Your task to perform on an android device: open app "Microsoft Outlook" Image 0: 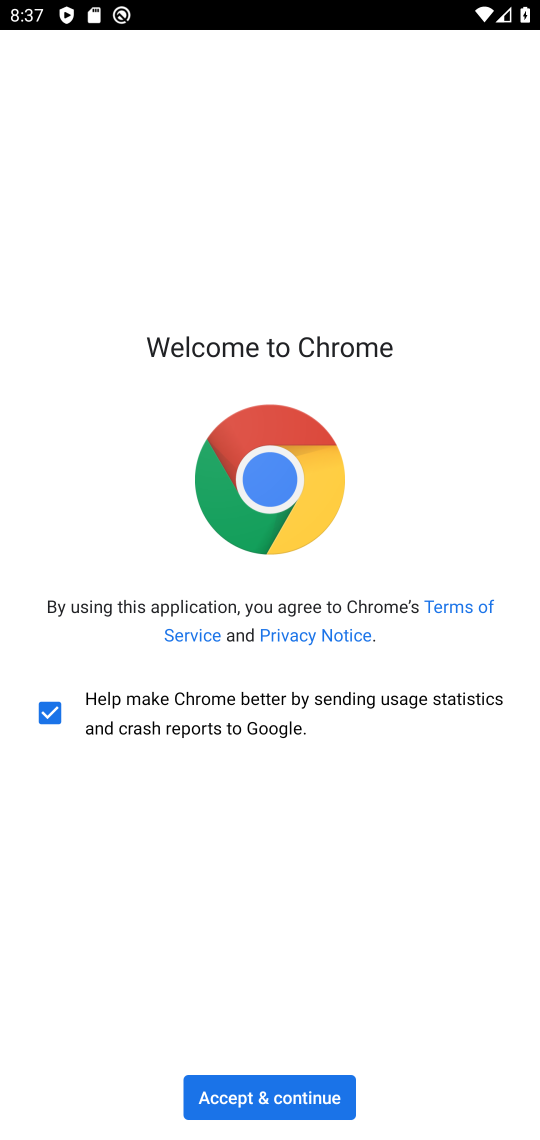
Step 0: click (250, 1096)
Your task to perform on an android device: open app "Microsoft Outlook" Image 1: 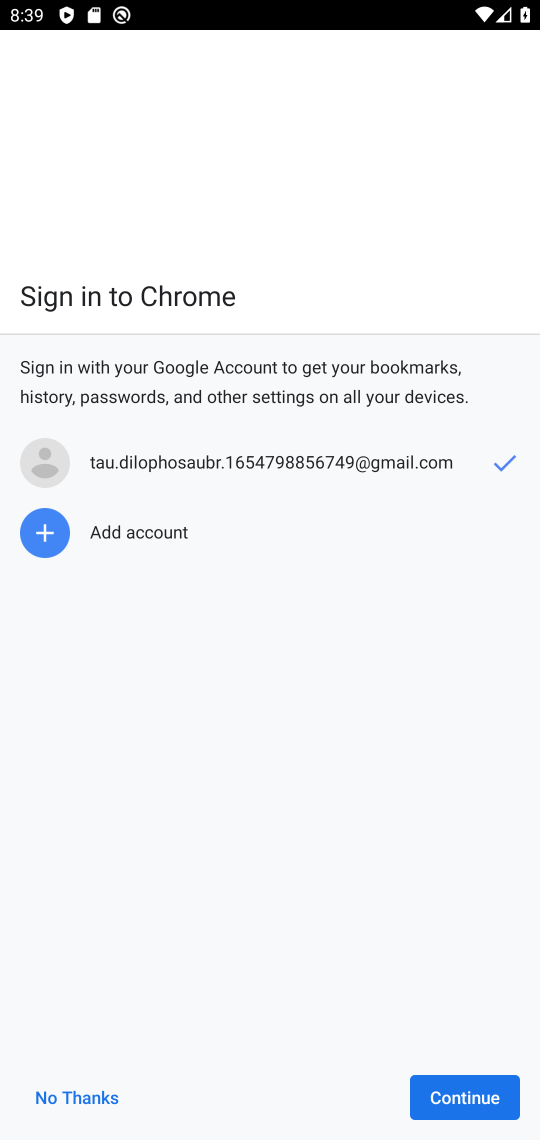
Step 1: press home button
Your task to perform on an android device: open app "Microsoft Outlook" Image 2: 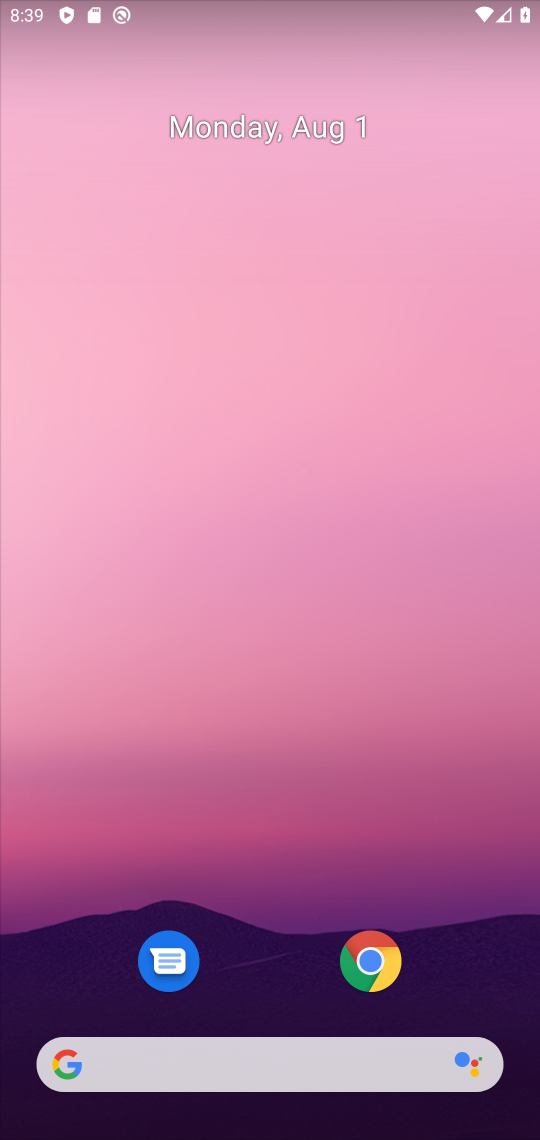
Step 2: drag from (482, 590) to (373, 0)
Your task to perform on an android device: open app "Microsoft Outlook" Image 3: 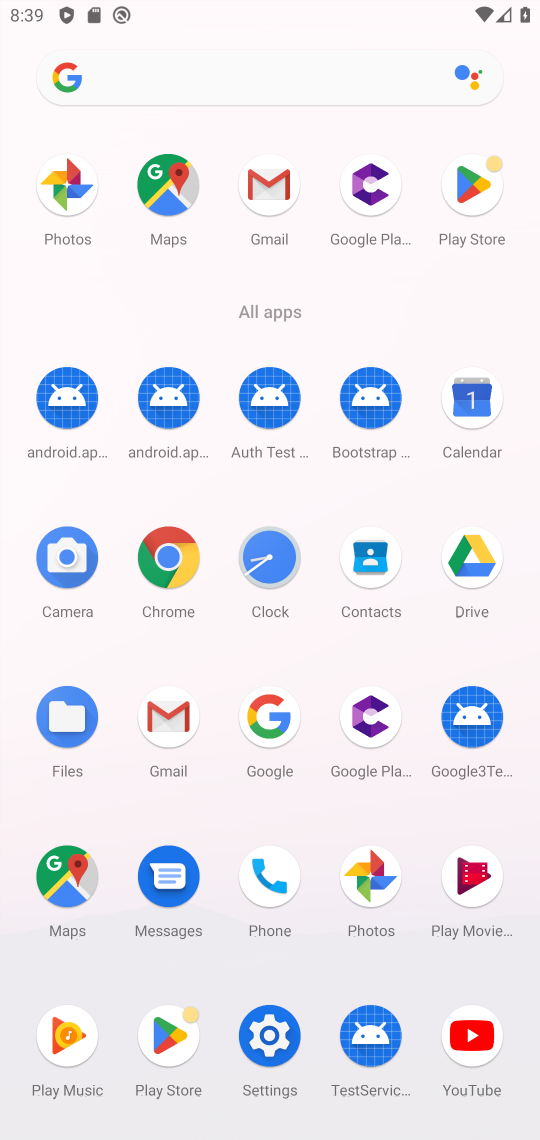
Step 3: click (493, 164)
Your task to perform on an android device: open app "Microsoft Outlook" Image 4: 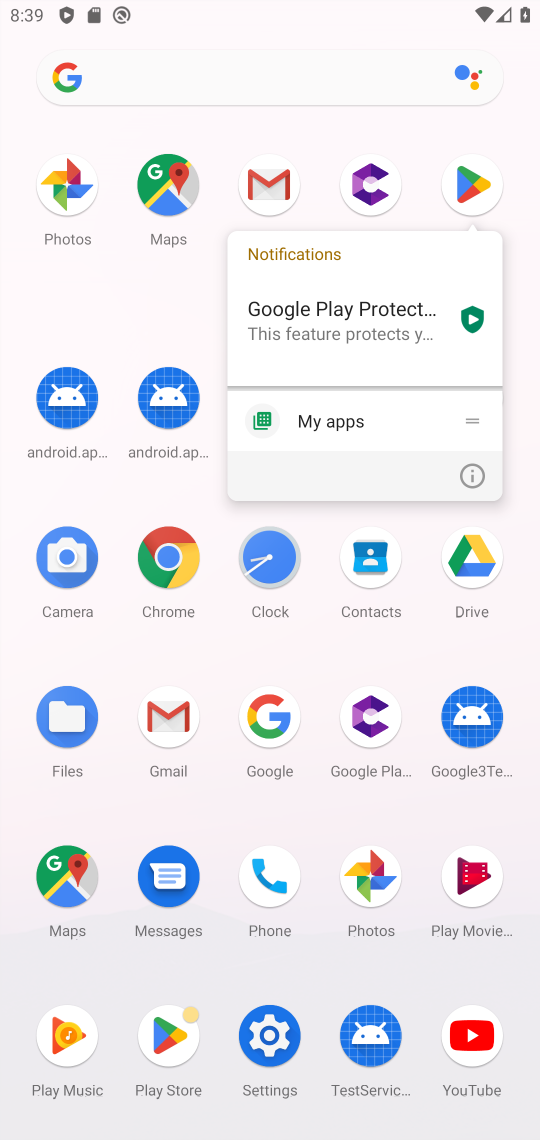
Step 4: click (464, 196)
Your task to perform on an android device: open app "Microsoft Outlook" Image 5: 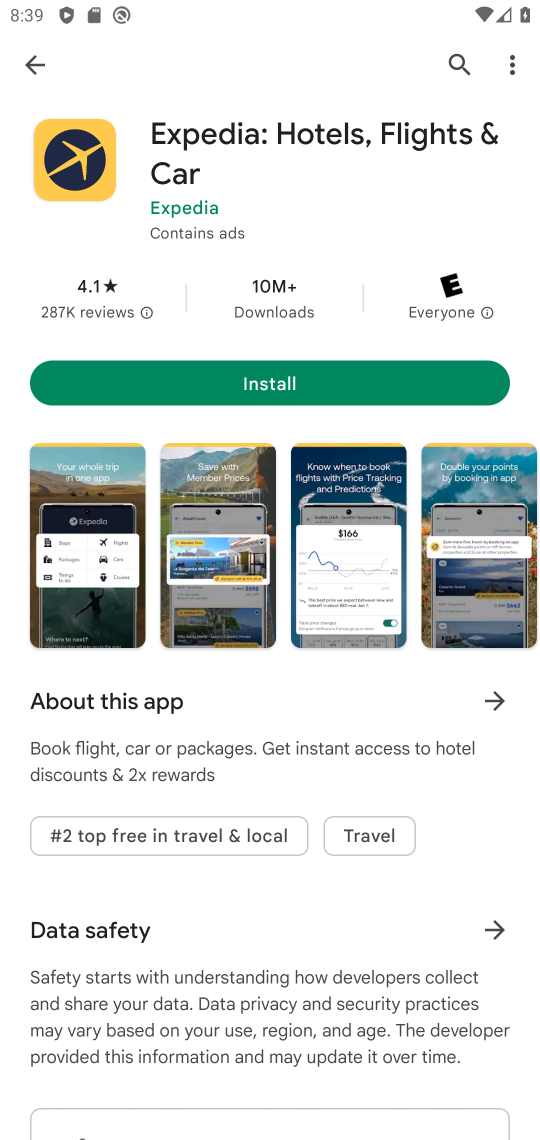
Step 5: click (47, 70)
Your task to perform on an android device: open app "Microsoft Outlook" Image 6: 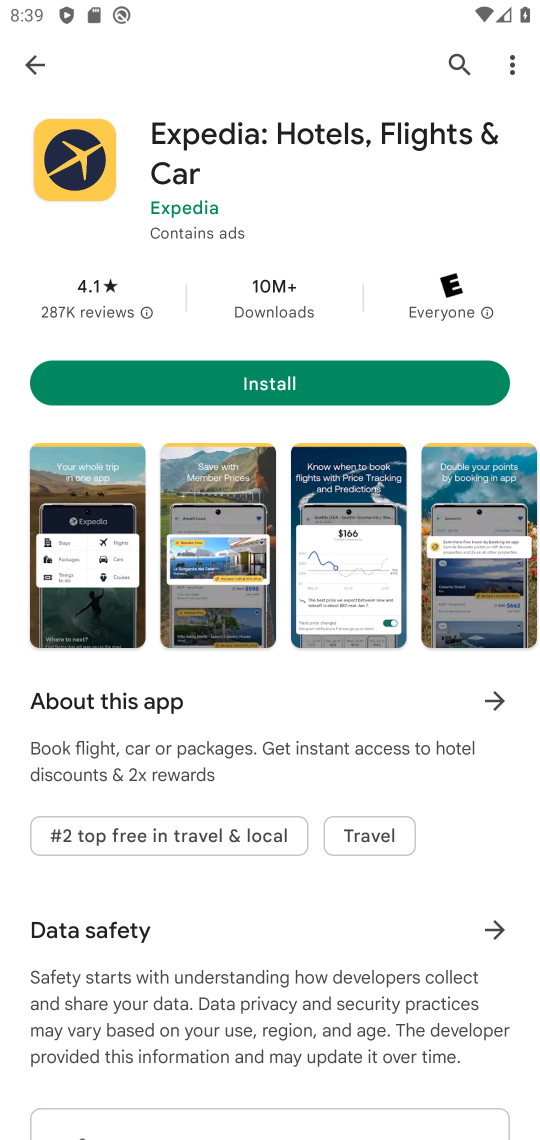
Step 6: click (35, 68)
Your task to perform on an android device: open app "Microsoft Outlook" Image 7: 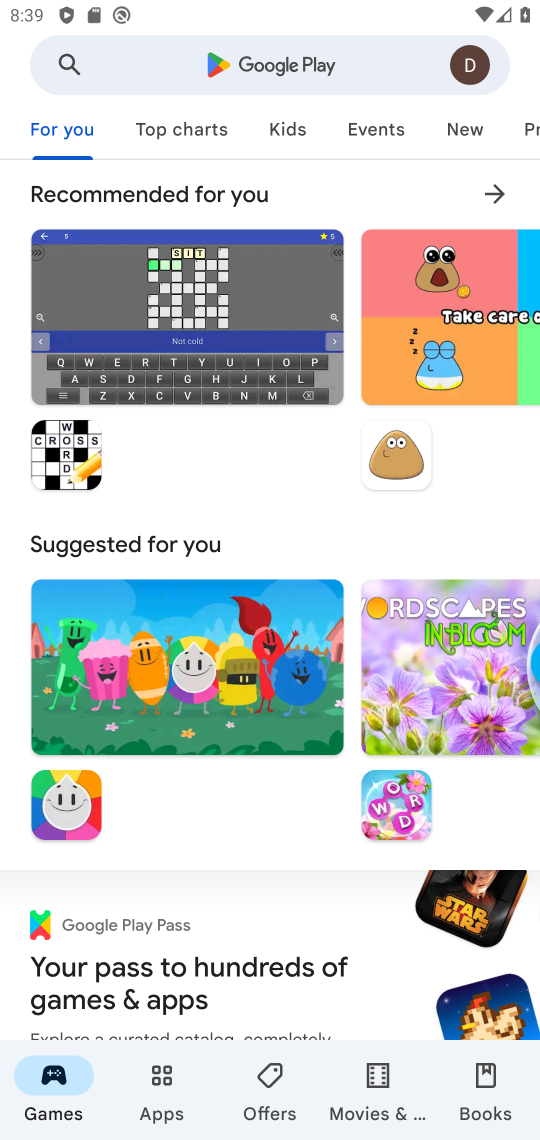
Step 7: click (190, 40)
Your task to perform on an android device: open app "Microsoft Outlook" Image 8: 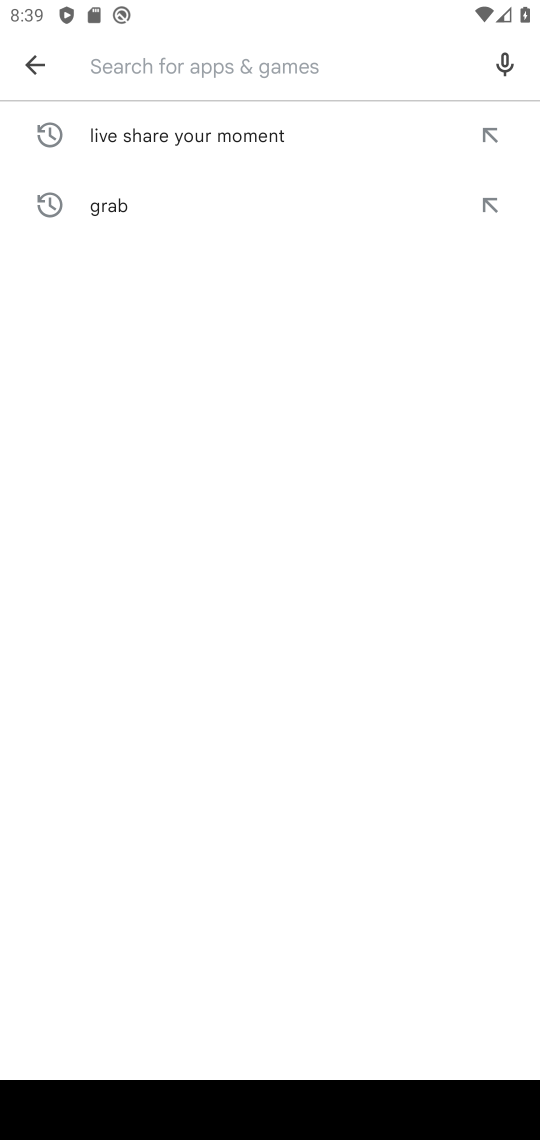
Step 8: type "Microsoft Outlook"
Your task to perform on an android device: open app "Microsoft Outlook" Image 9: 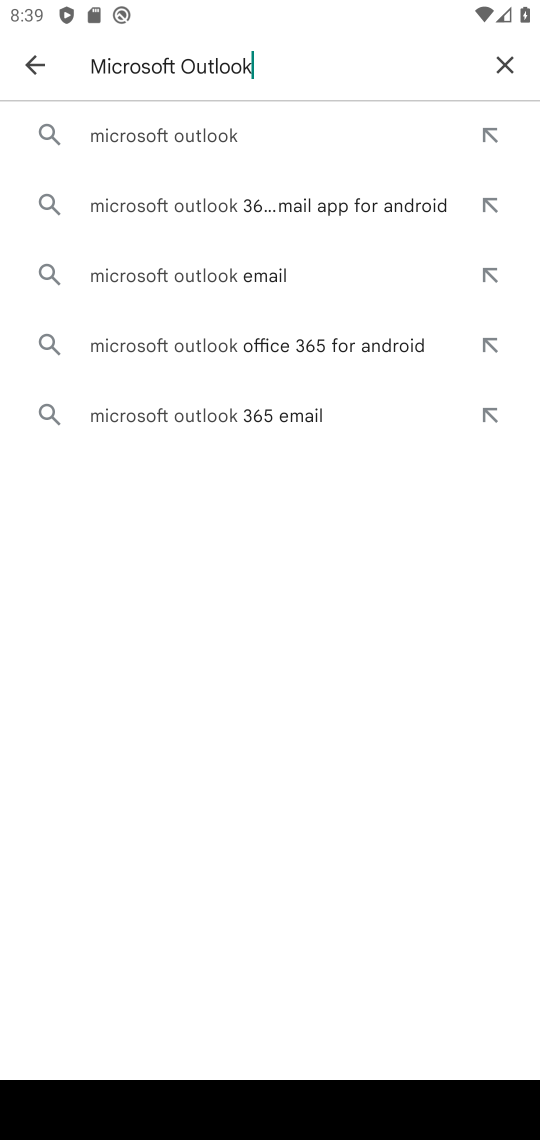
Step 9: click (207, 138)
Your task to perform on an android device: open app "Microsoft Outlook" Image 10: 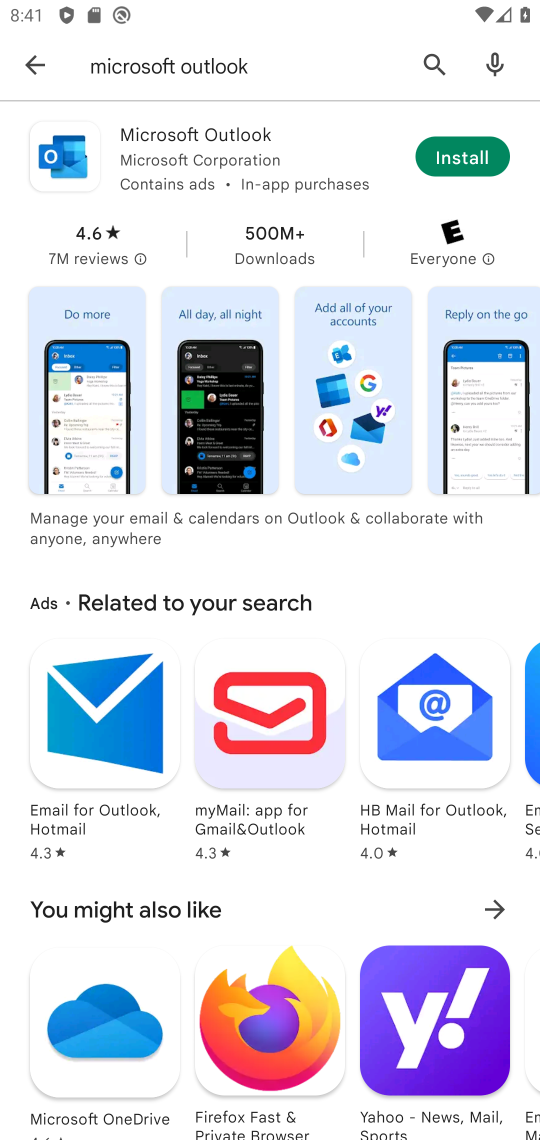
Step 10: task complete